Your task to perform on an android device: star an email in the gmail app Image 0: 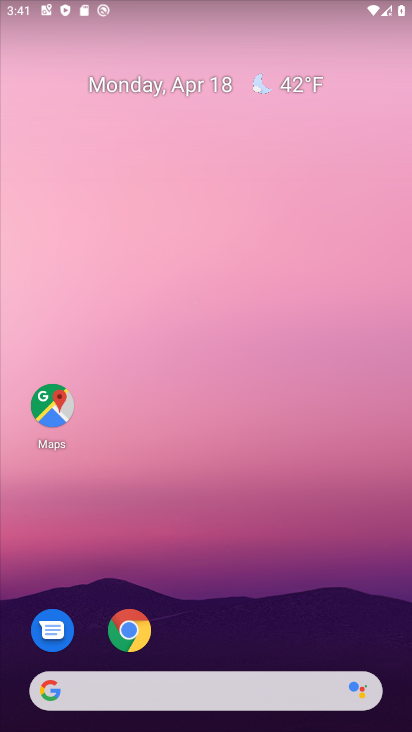
Step 0: drag from (215, 580) to (241, 82)
Your task to perform on an android device: star an email in the gmail app Image 1: 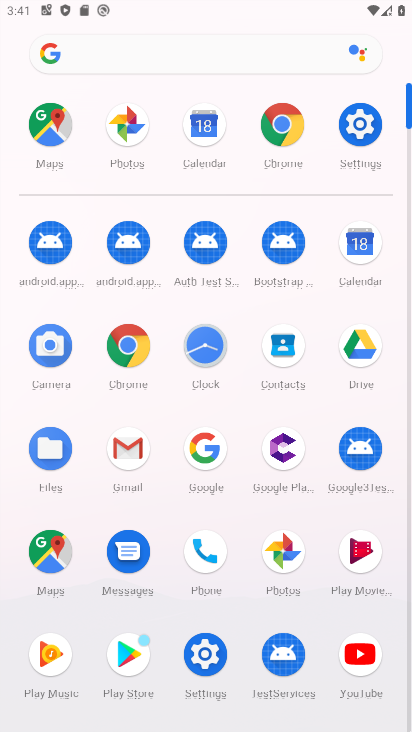
Step 1: click (119, 445)
Your task to perform on an android device: star an email in the gmail app Image 2: 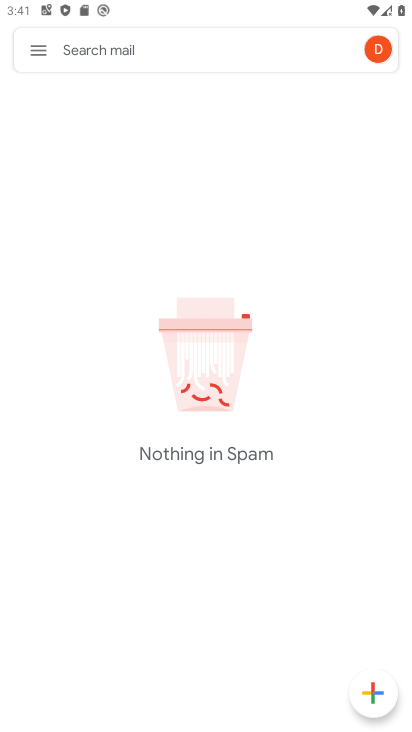
Step 2: click (43, 47)
Your task to perform on an android device: star an email in the gmail app Image 3: 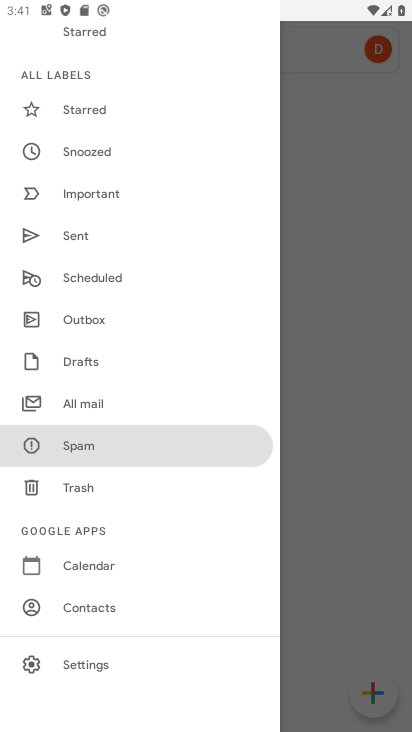
Step 3: drag from (115, 158) to (91, 527)
Your task to perform on an android device: star an email in the gmail app Image 4: 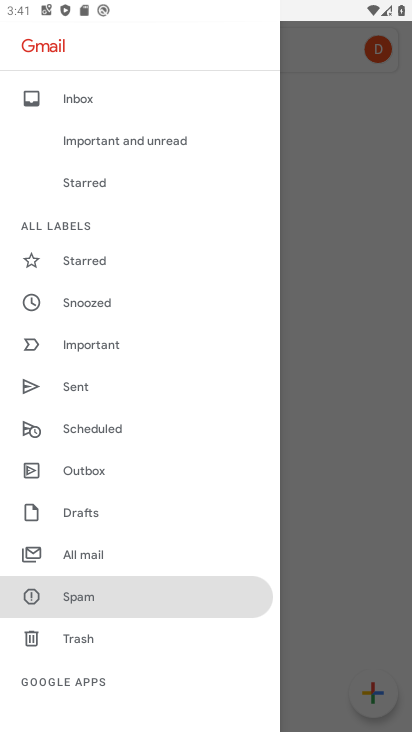
Step 4: click (116, 182)
Your task to perform on an android device: star an email in the gmail app Image 5: 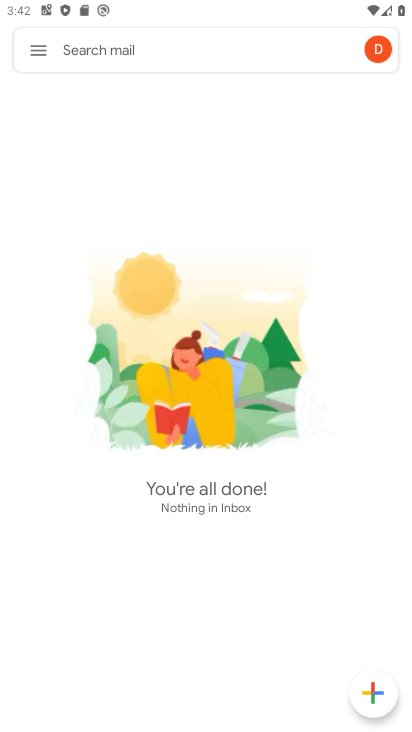
Step 5: task complete